Your task to perform on an android device: empty trash in the gmail app Image 0: 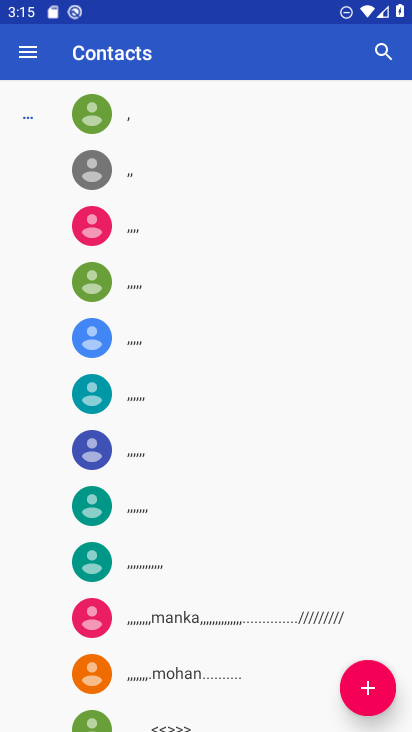
Step 0: press home button
Your task to perform on an android device: empty trash in the gmail app Image 1: 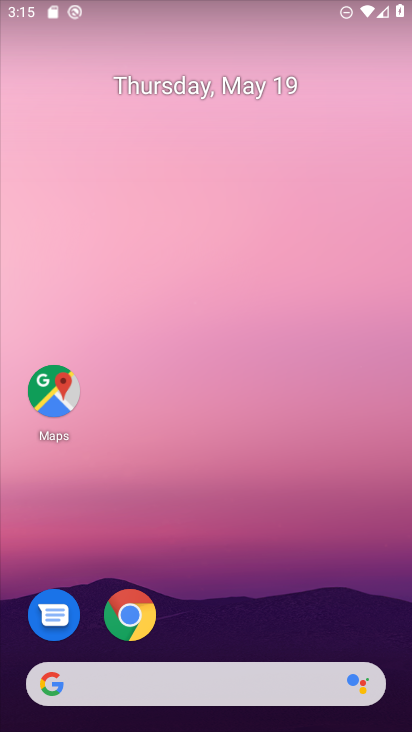
Step 1: drag from (247, 600) to (185, 206)
Your task to perform on an android device: empty trash in the gmail app Image 2: 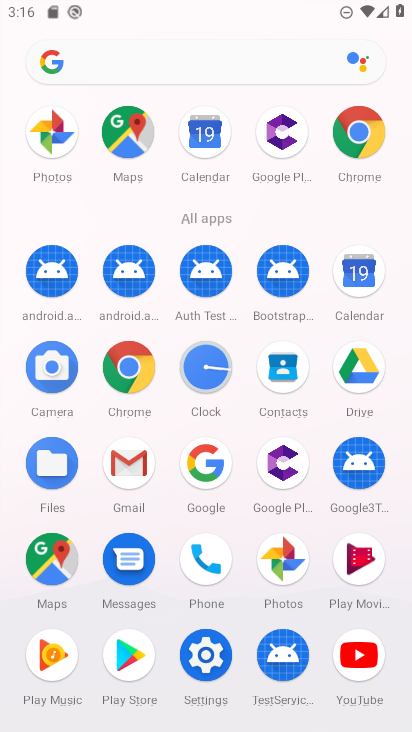
Step 2: click (124, 486)
Your task to perform on an android device: empty trash in the gmail app Image 3: 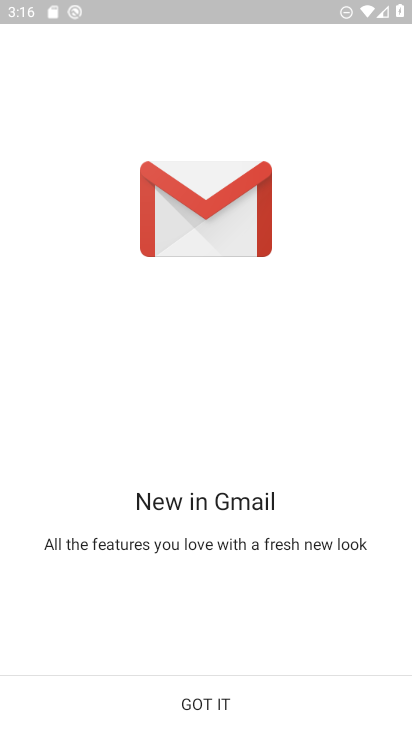
Step 3: click (233, 708)
Your task to perform on an android device: empty trash in the gmail app Image 4: 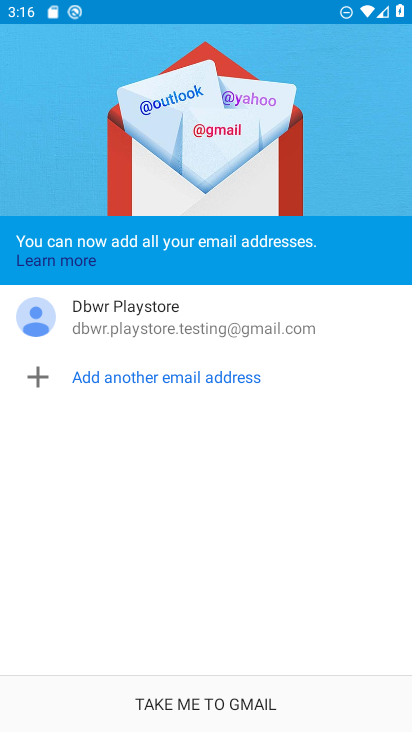
Step 4: click (233, 710)
Your task to perform on an android device: empty trash in the gmail app Image 5: 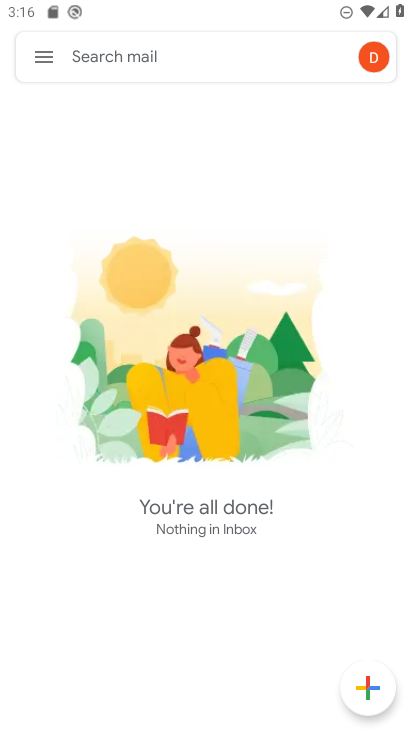
Step 5: click (47, 63)
Your task to perform on an android device: empty trash in the gmail app Image 6: 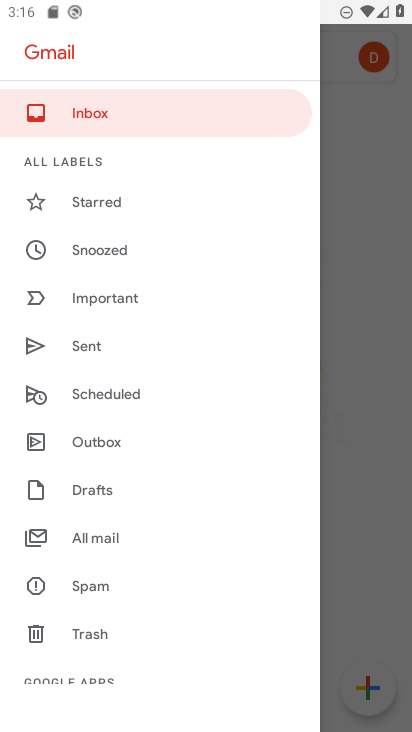
Step 6: click (75, 625)
Your task to perform on an android device: empty trash in the gmail app Image 7: 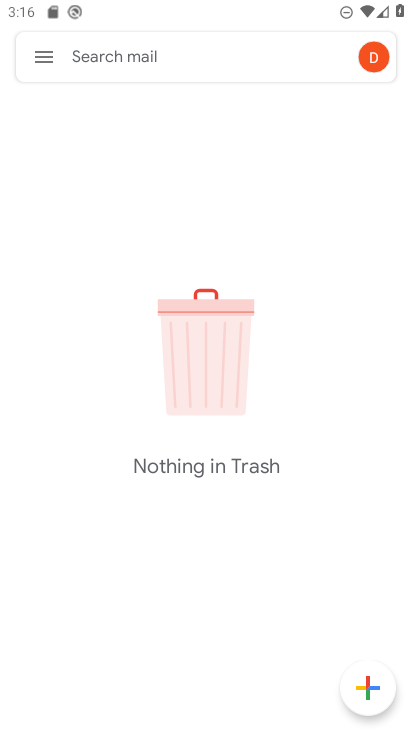
Step 7: task complete